Your task to perform on an android device: Show me popular videos on Youtube Image 0: 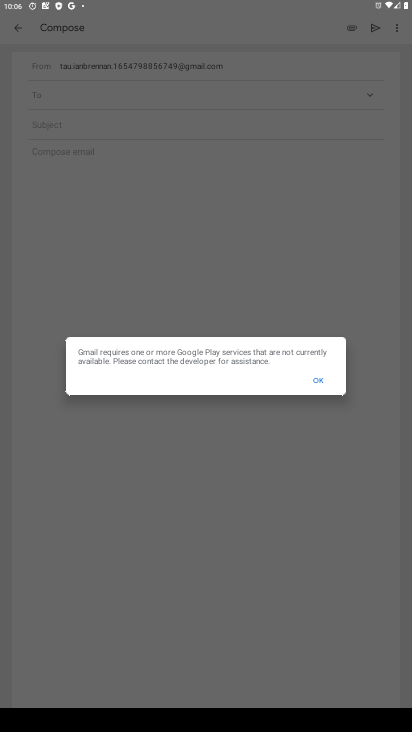
Step 0: press home button
Your task to perform on an android device: Show me popular videos on Youtube Image 1: 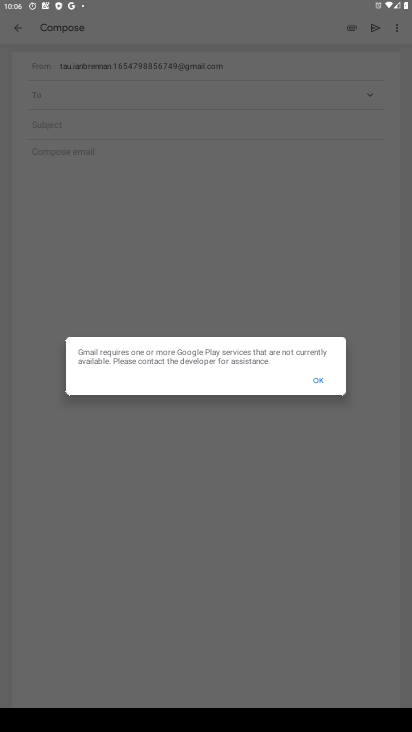
Step 1: press home button
Your task to perform on an android device: Show me popular videos on Youtube Image 2: 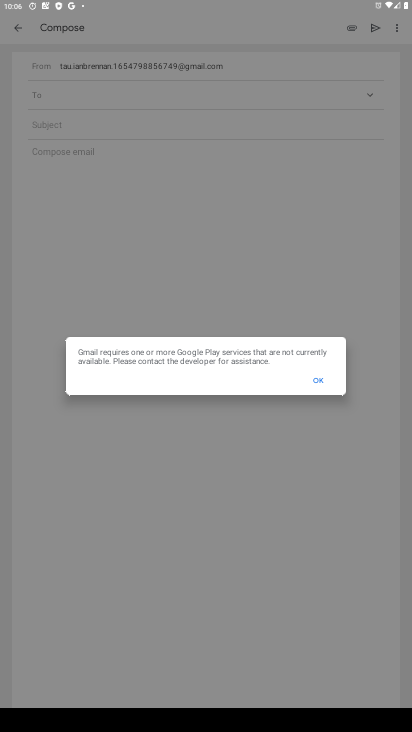
Step 2: drag from (335, 19) to (210, 18)
Your task to perform on an android device: Show me popular videos on Youtube Image 3: 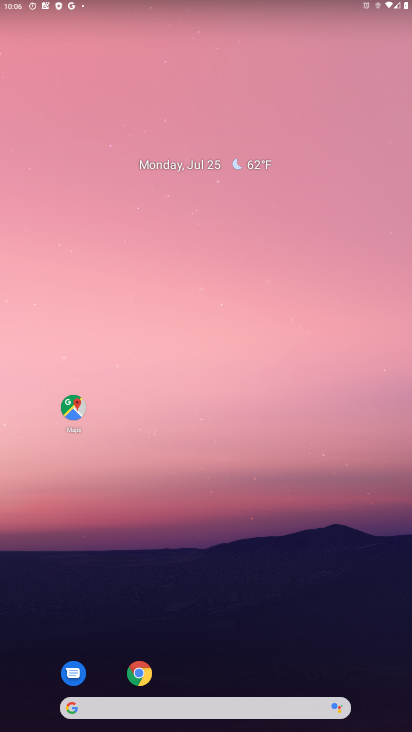
Step 3: drag from (239, 510) to (239, 67)
Your task to perform on an android device: Show me popular videos on Youtube Image 4: 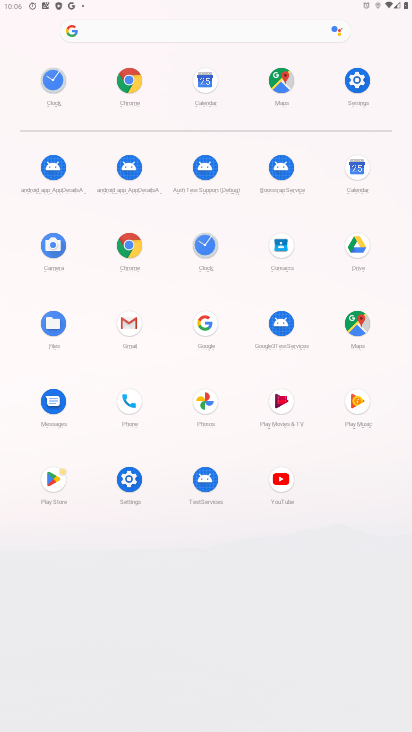
Step 4: click (282, 482)
Your task to perform on an android device: Show me popular videos on Youtube Image 5: 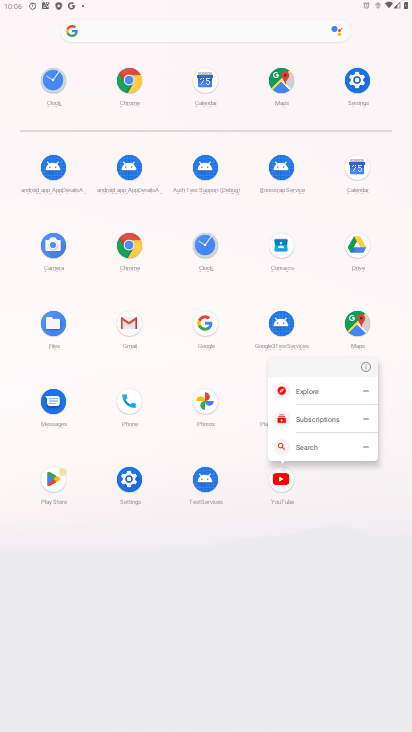
Step 5: click (362, 372)
Your task to perform on an android device: Show me popular videos on Youtube Image 6: 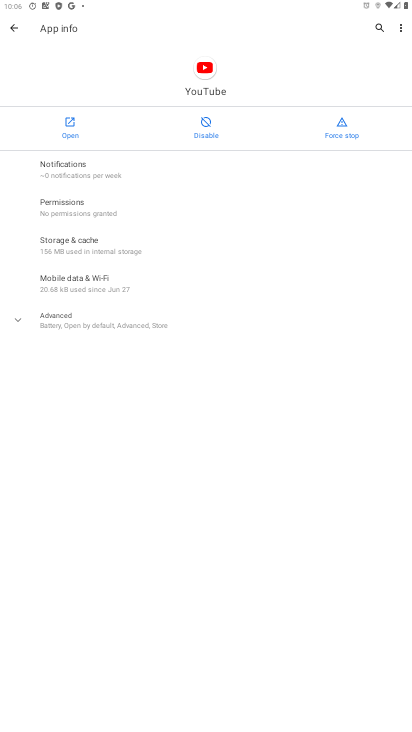
Step 6: click (67, 119)
Your task to perform on an android device: Show me popular videos on Youtube Image 7: 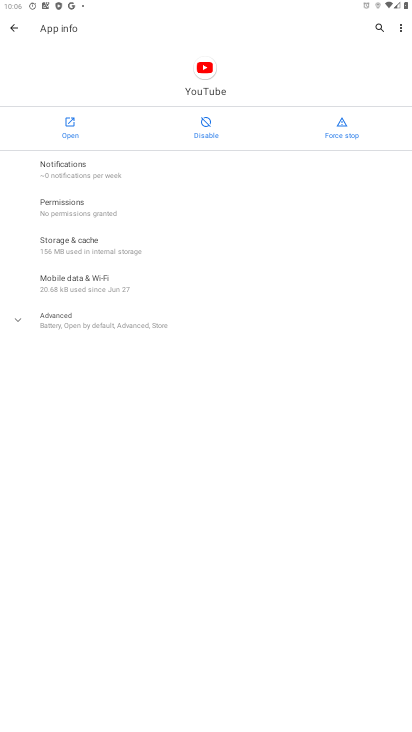
Step 7: click (67, 119)
Your task to perform on an android device: Show me popular videos on Youtube Image 8: 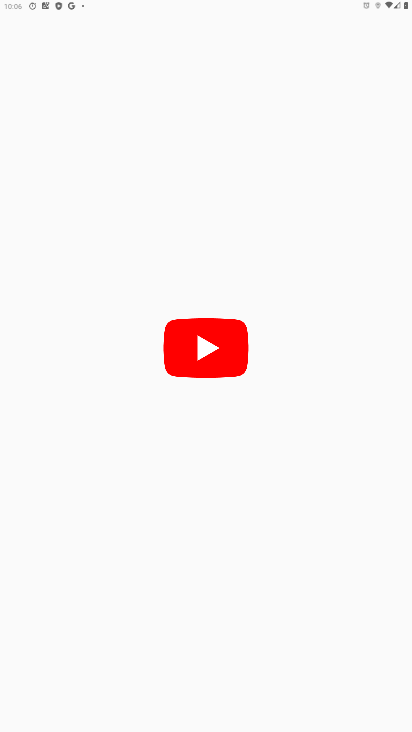
Step 8: drag from (233, 581) to (212, 417)
Your task to perform on an android device: Show me popular videos on Youtube Image 9: 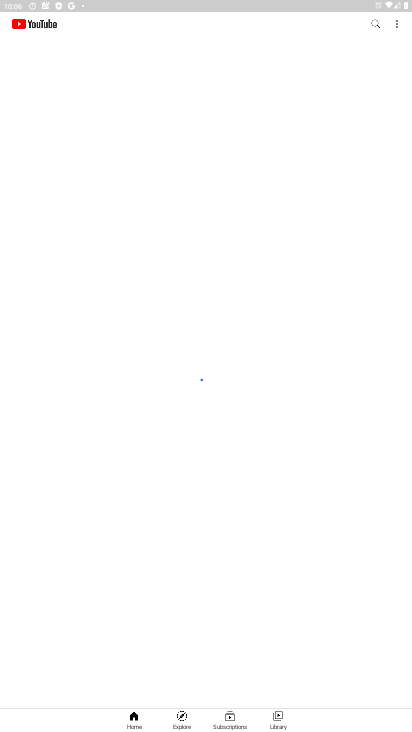
Step 9: drag from (216, 559) to (206, 339)
Your task to perform on an android device: Show me popular videos on Youtube Image 10: 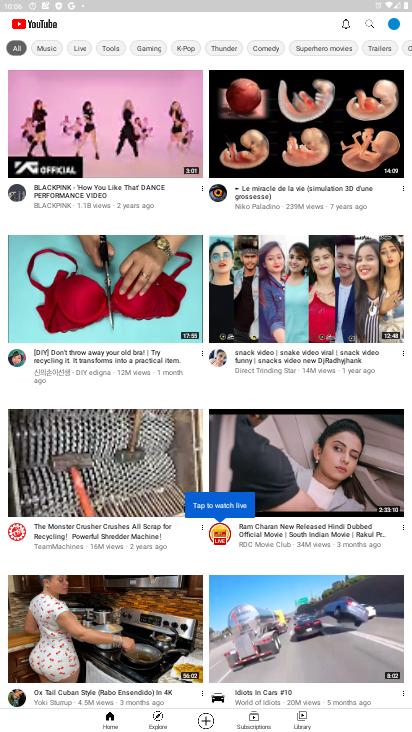
Step 10: drag from (215, 537) to (206, 352)
Your task to perform on an android device: Show me popular videos on Youtube Image 11: 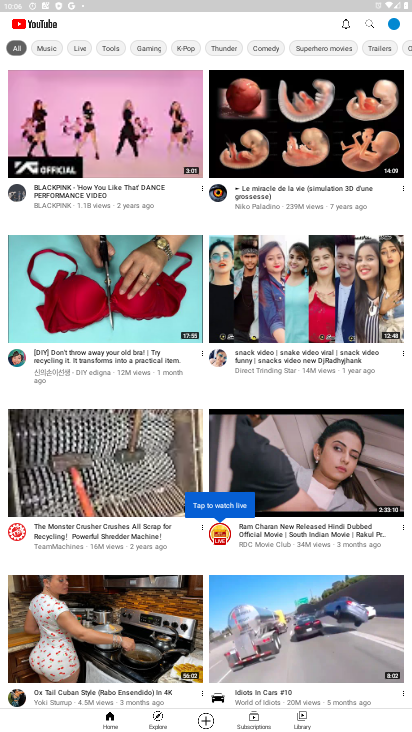
Step 11: click (227, 423)
Your task to perform on an android device: Show me popular videos on Youtube Image 12: 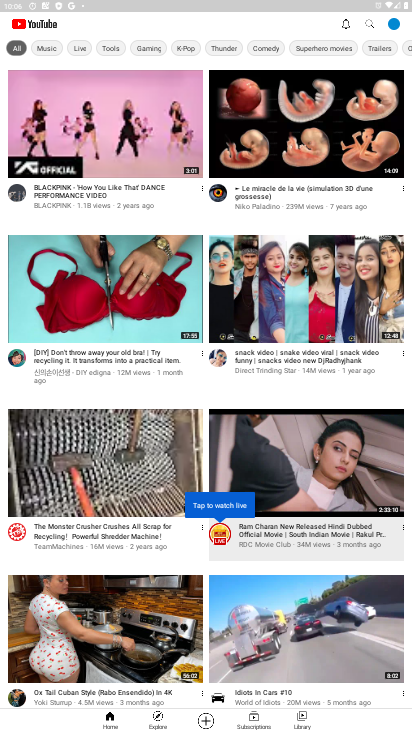
Step 12: click (310, 724)
Your task to perform on an android device: Show me popular videos on Youtube Image 13: 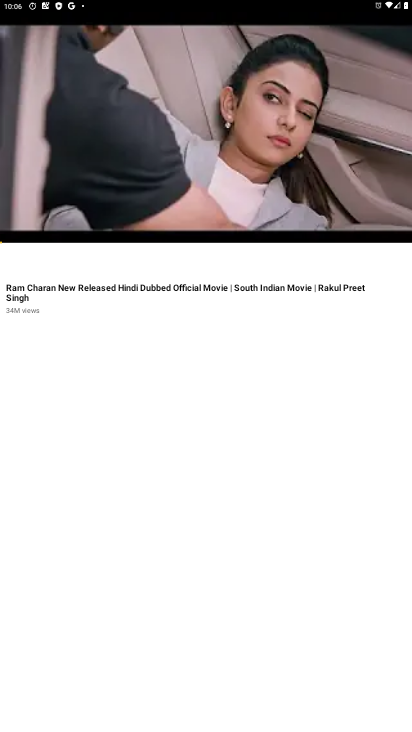
Step 13: drag from (206, 130) to (293, 632)
Your task to perform on an android device: Show me popular videos on Youtube Image 14: 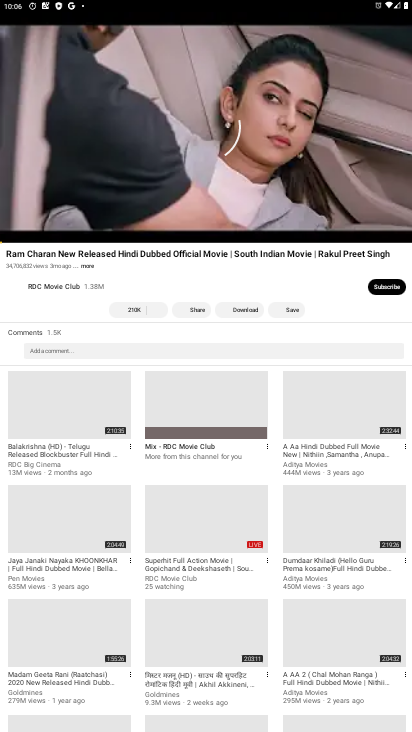
Step 14: drag from (262, 156) to (349, 730)
Your task to perform on an android device: Show me popular videos on Youtube Image 15: 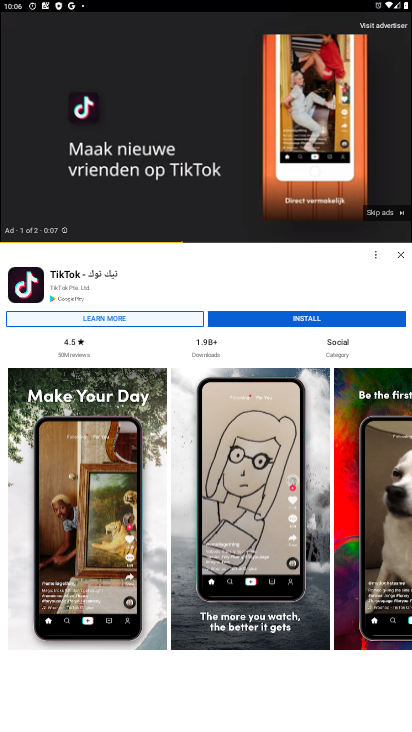
Step 15: click (217, 154)
Your task to perform on an android device: Show me popular videos on Youtube Image 16: 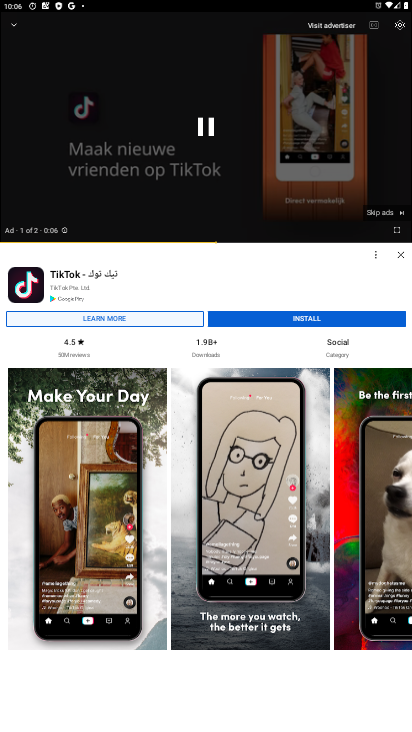
Step 16: click (210, 112)
Your task to perform on an android device: Show me popular videos on Youtube Image 17: 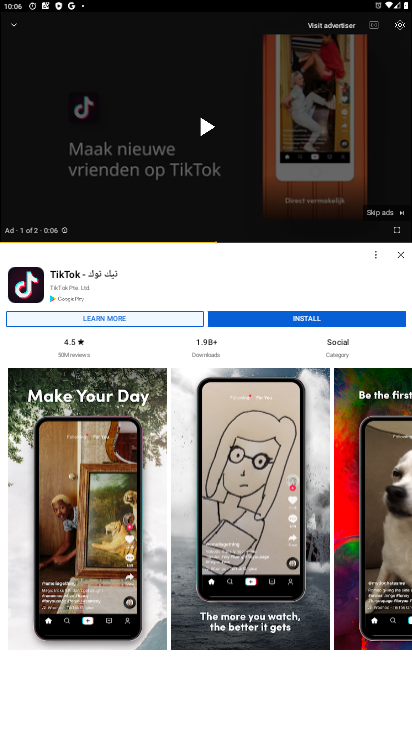
Step 17: drag from (283, 102) to (238, 694)
Your task to perform on an android device: Show me popular videos on Youtube Image 18: 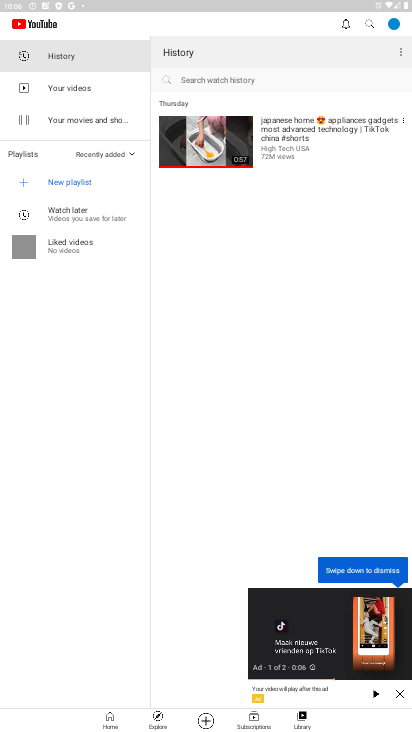
Step 18: drag from (341, 652) to (25, 694)
Your task to perform on an android device: Show me popular videos on Youtube Image 19: 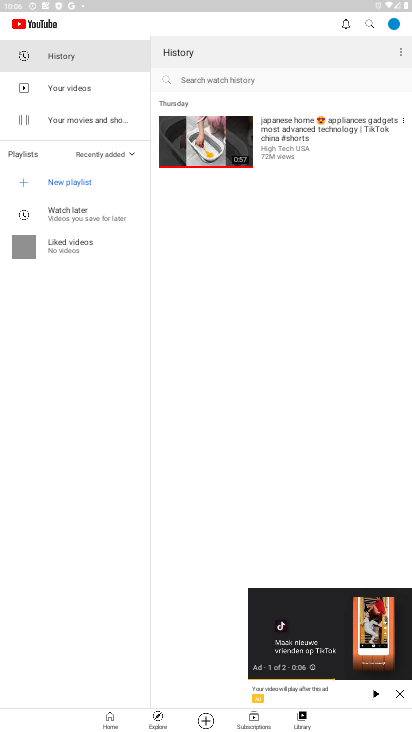
Step 19: click (404, 694)
Your task to perform on an android device: Show me popular videos on Youtube Image 20: 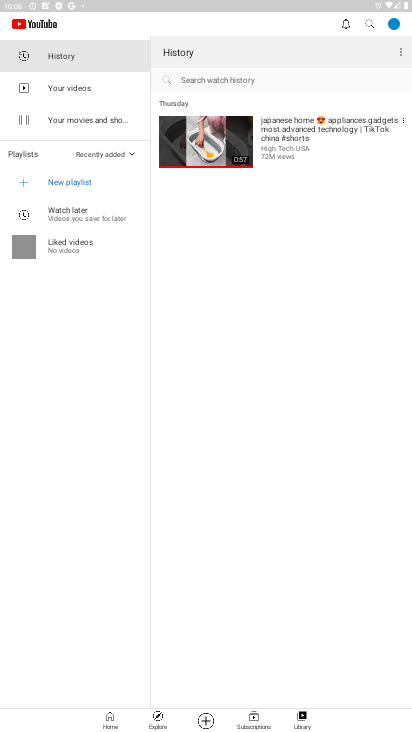
Step 20: drag from (168, 620) to (181, 262)
Your task to perform on an android device: Show me popular videos on Youtube Image 21: 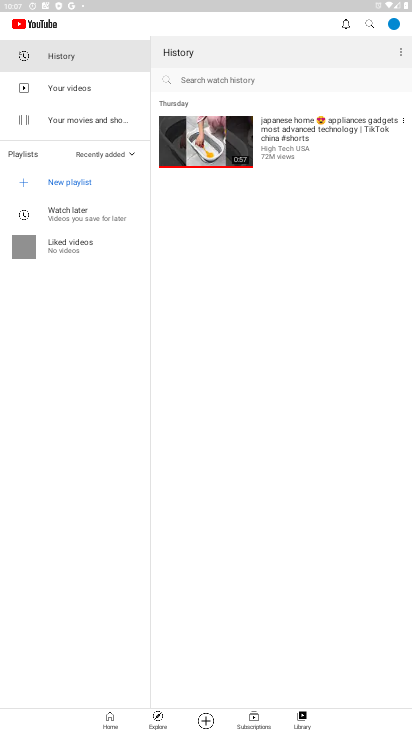
Step 21: click (104, 720)
Your task to perform on an android device: Show me popular videos on Youtube Image 22: 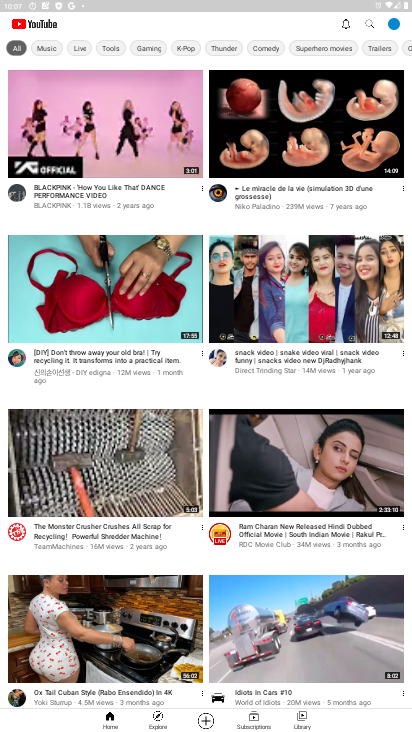
Step 22: task complete